Your task to perform on an android device: Open ESPN.com Image 0: 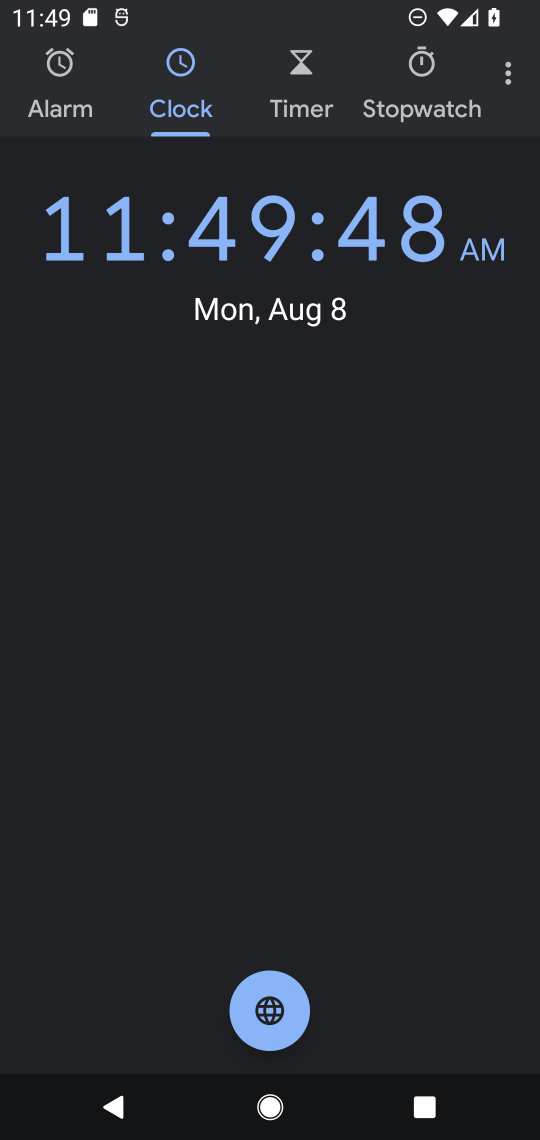
Step 0: press home button
Your task to perform on an android device: Open ESPN.com Image 1: 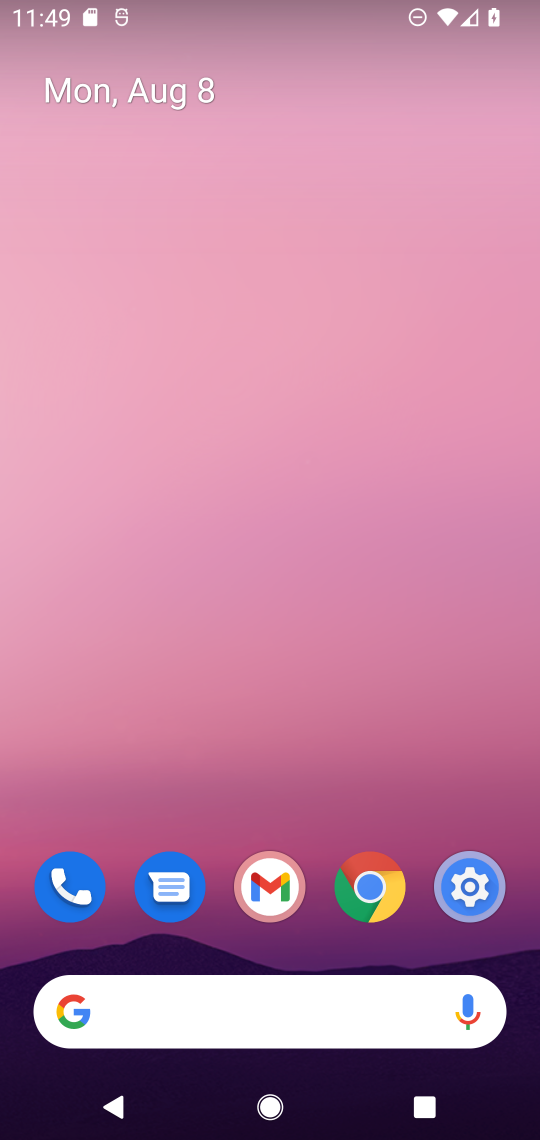
Step 1: click (381, 882)
Your task to perform on an android device: Open ESPN.com Image 2: 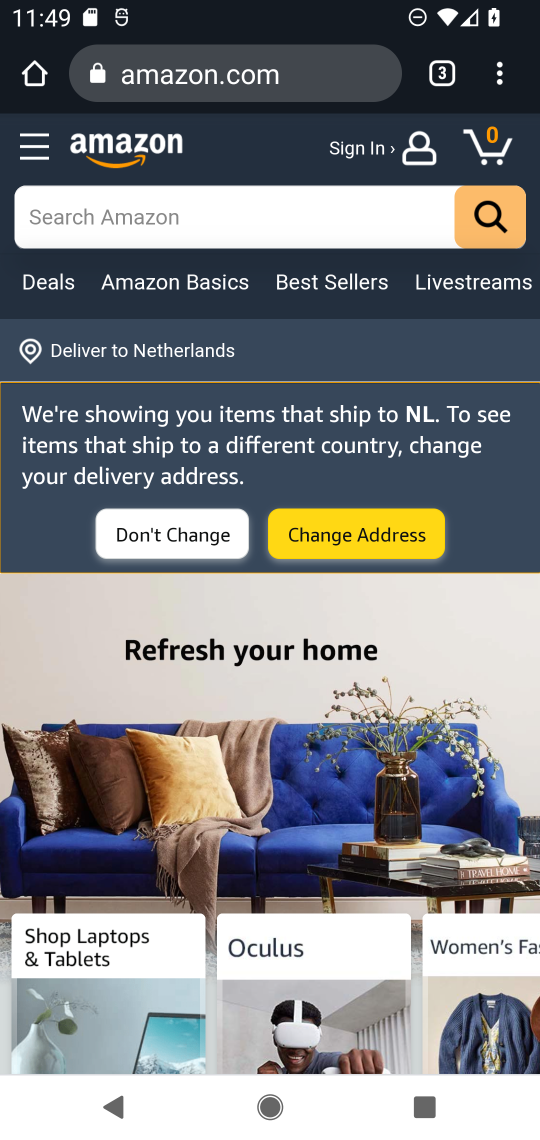
Step 2: click (500, 66)
Your task to perform on an android device: Open ESPN.com Image 3: 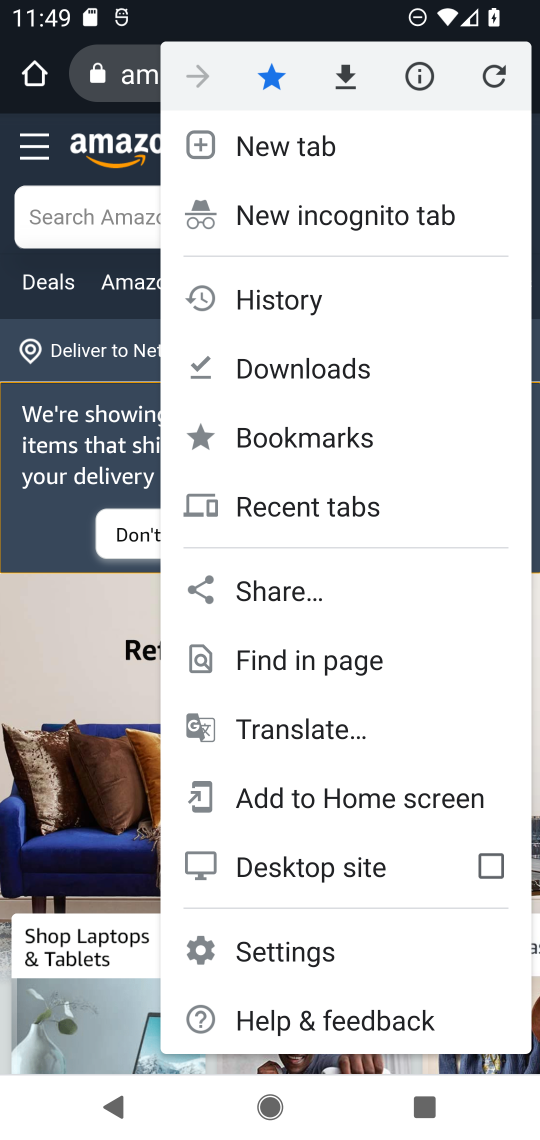
Step 3: click (299, 137)
Your task to perform on an android device: Open ESPN.com Image 4: 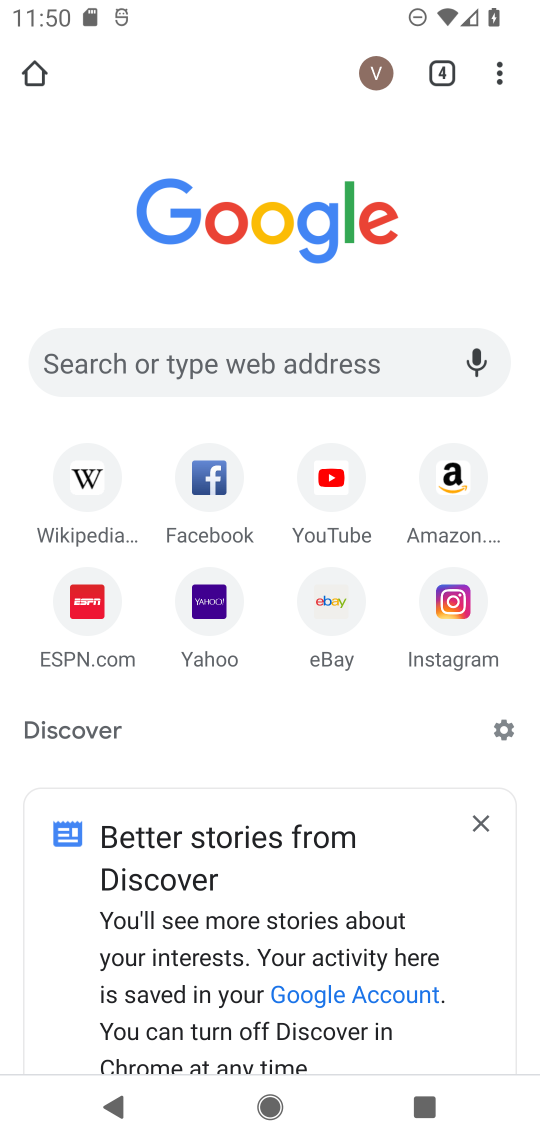
Step 4: click (96, 597)
Your task to perform on an android device: Open ESPN.com Image 5: 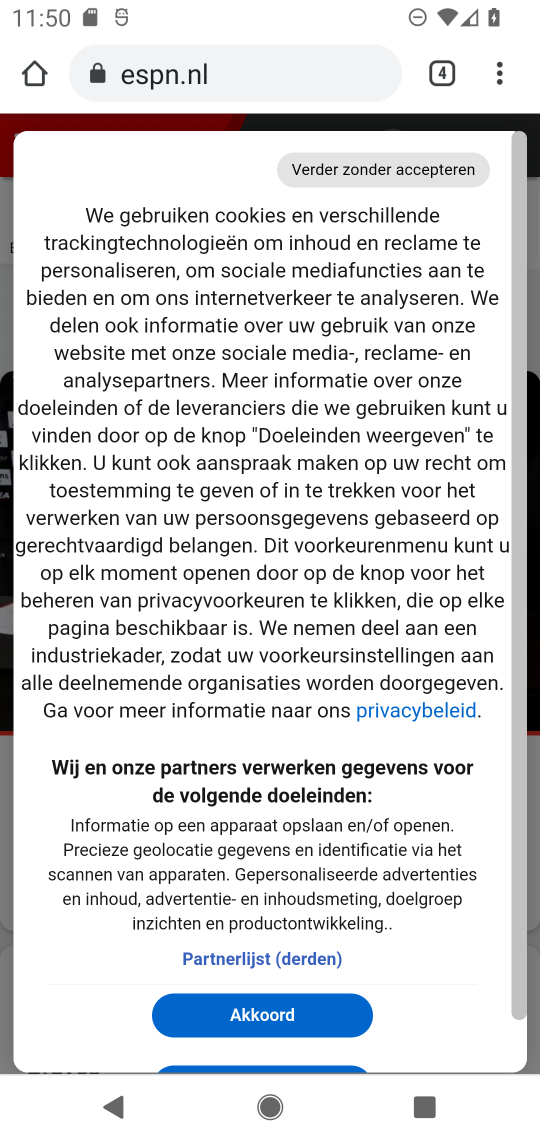
Step 5: click (293, 1016)
Your task to perform on an android device: Open ESPN.com Image 6: 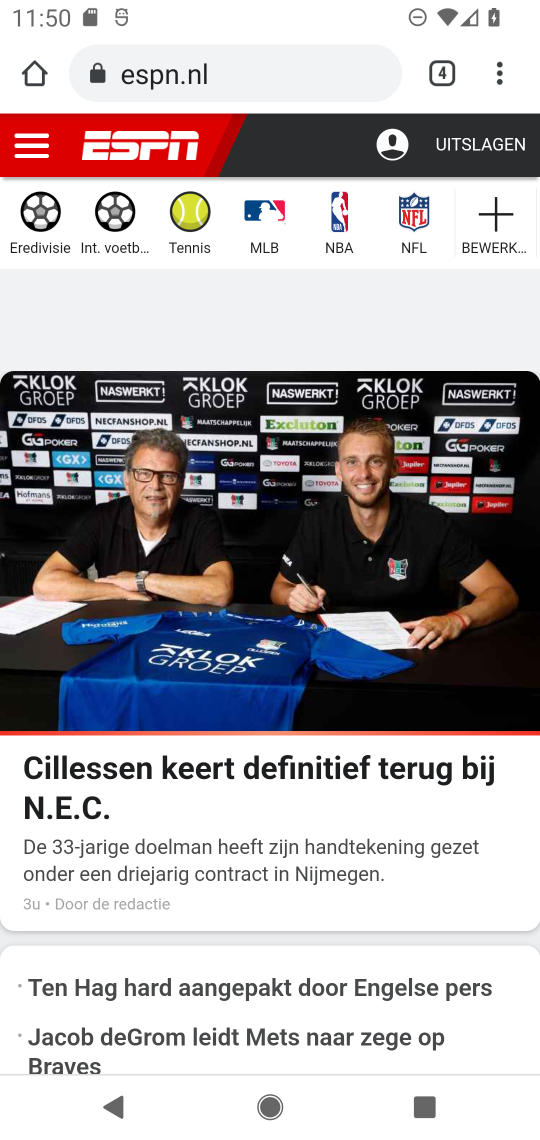
Step 6: task complete